Your task to perform on an android device: check google app version Image 0: 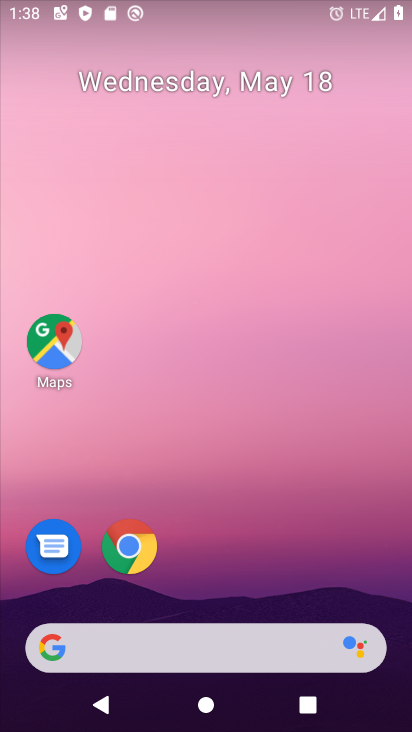
Step 0: drag from (233, 604) to (235, 367)
Your task to perform on an android device: check google app version Image 1: 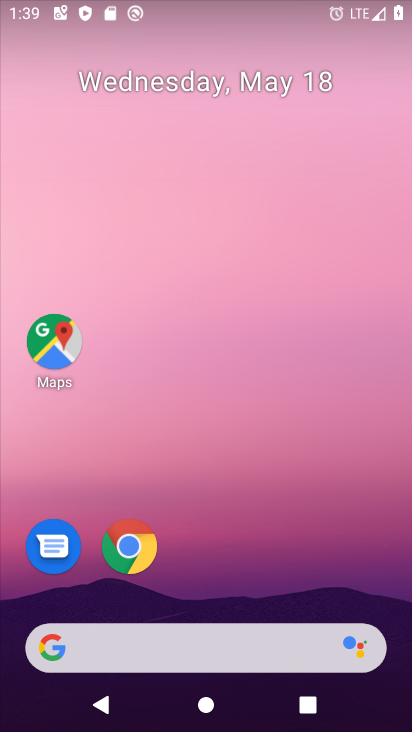
Step 1: drag from (219, 585) to (201, 10)
Your task to perform on an android device: check google app version Image 2: 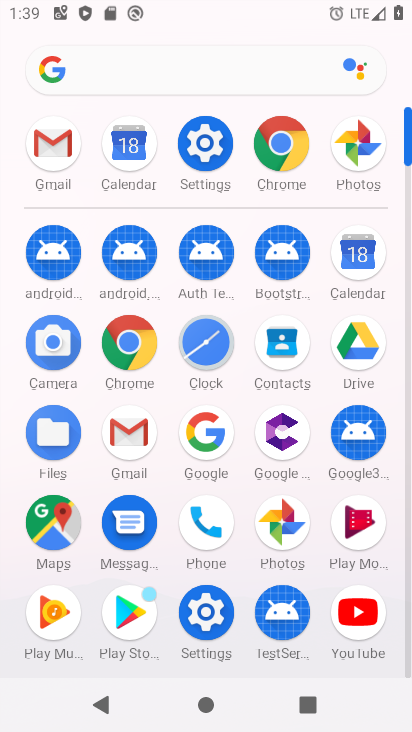
Step 2: click (190, 442)
Your task to perform on an android device: check google app version Image 3: 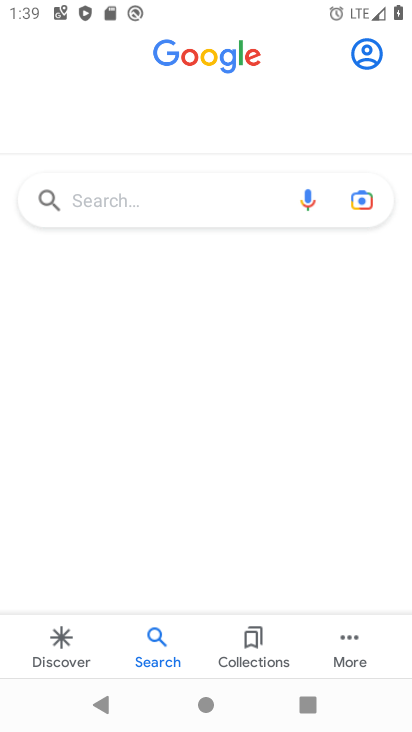
Step 3: click (351, 663)
Your task to perform on an android device: check google app version Image 4: 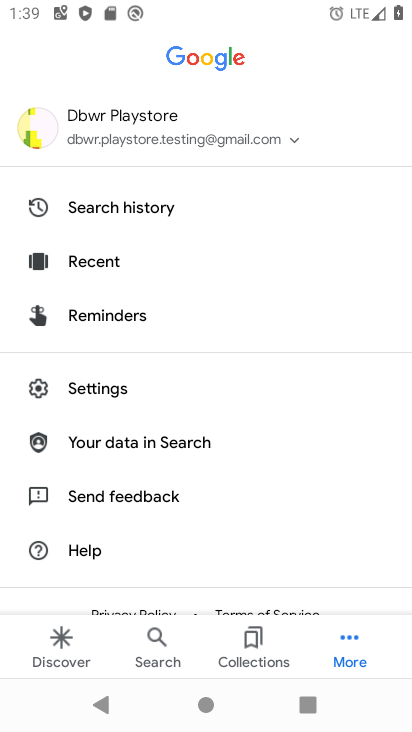
Step 4: click (132, 386)
Your task to perform on an android device: check google app version Image 5: 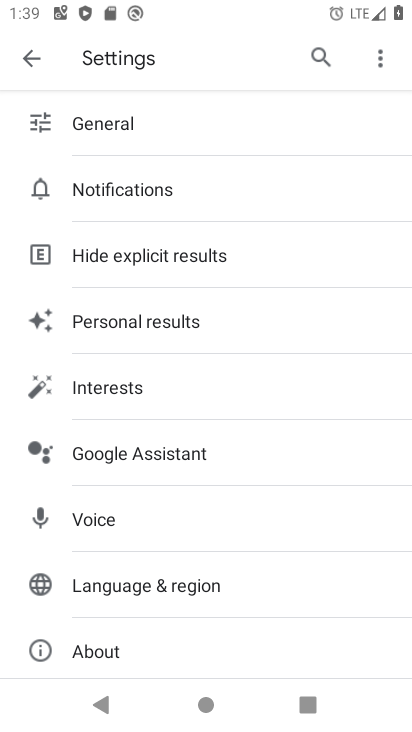
Step 5: drag from (135, 515) to (138, 49)
Your task to perform on an android device: check google app version Image 6: 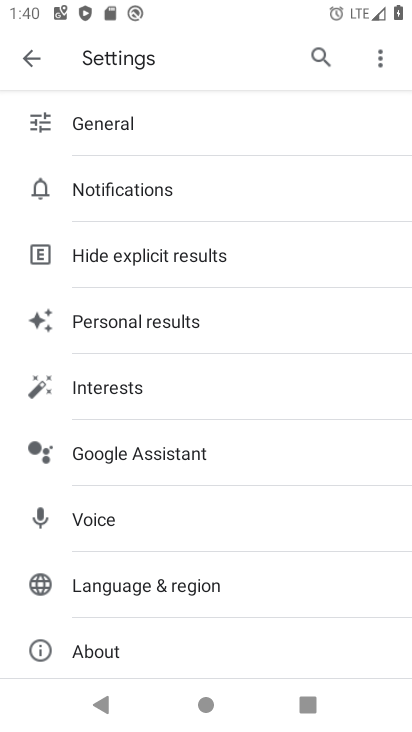
Step 6: click (107, 663)
Your task to perform on an android device: check google app version Image 7: 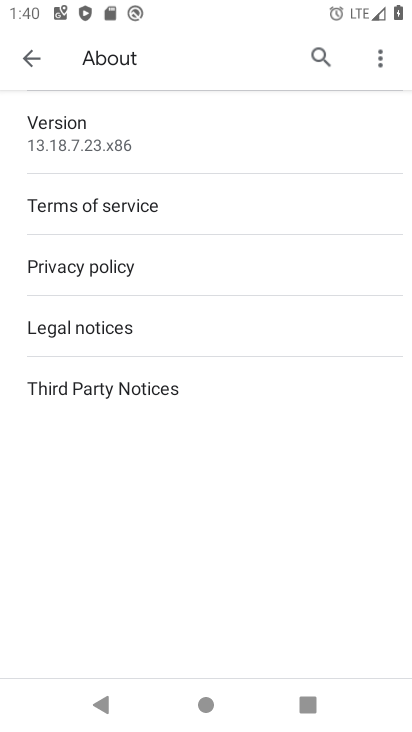
Step 7: task complete